Your task to perform on an android device: Go to Yahoo.com Image 0: 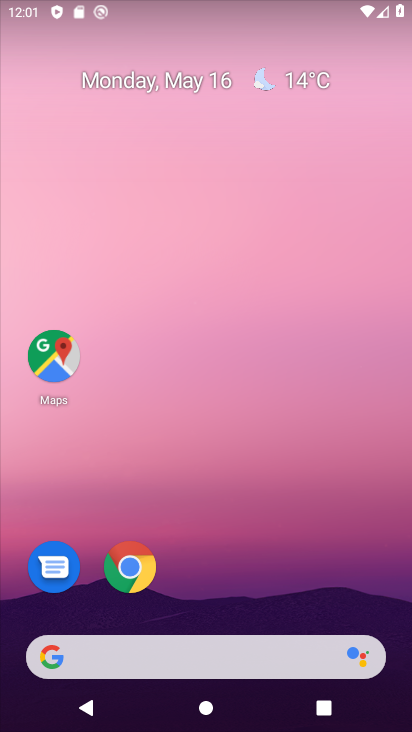
Step 0: press home button
Your task to perform on an android device: Go to Yahoo.com Image 1: 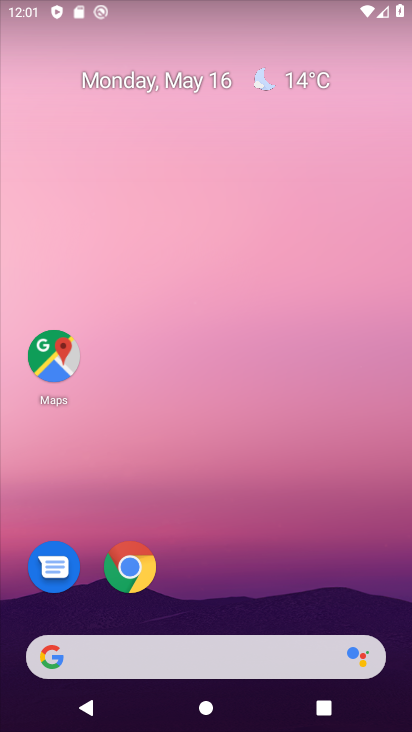
Step 1: click (135, 569)
Your task to perform on an android device: Go to Yahoo.com Image 2: 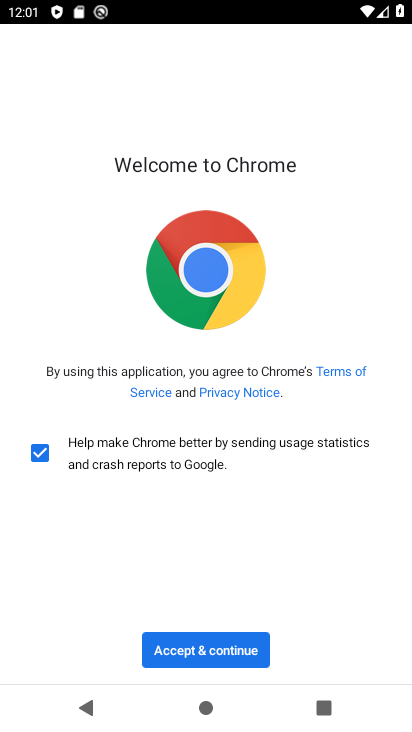
Step 2: click (225, 649)
Your task to perform on an android device: Go to Yahoo.com Image 3: 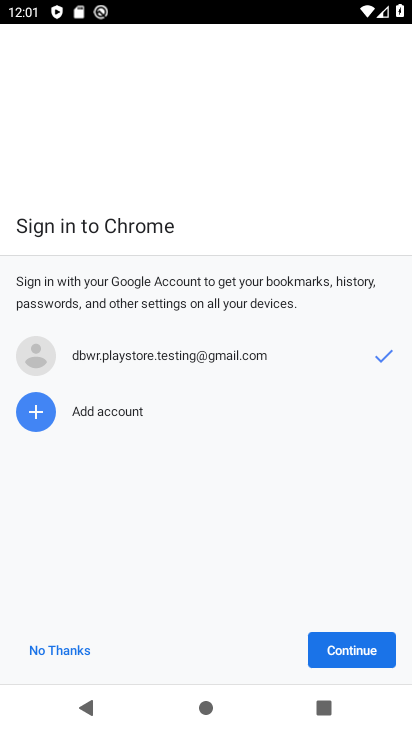
Step 3: click (350, 661)
Your task to perform on an android device: Go to Yahoo.com Image 4: 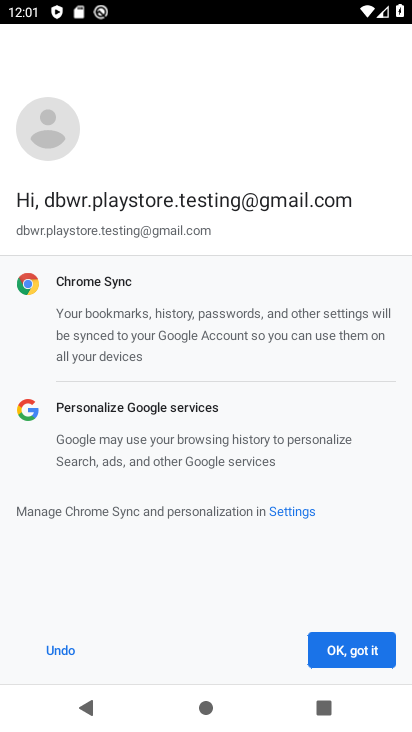
Step 4: click (350, 661)
Your task to perform on an android device: Go to Yahoo.com Image 5: 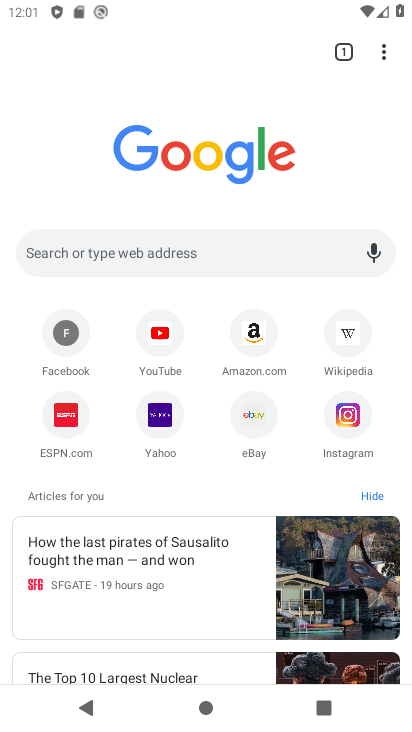
Step 5: click (155, 415)
Your task to perform on an android device: Go to Yahoo.com Image 6: 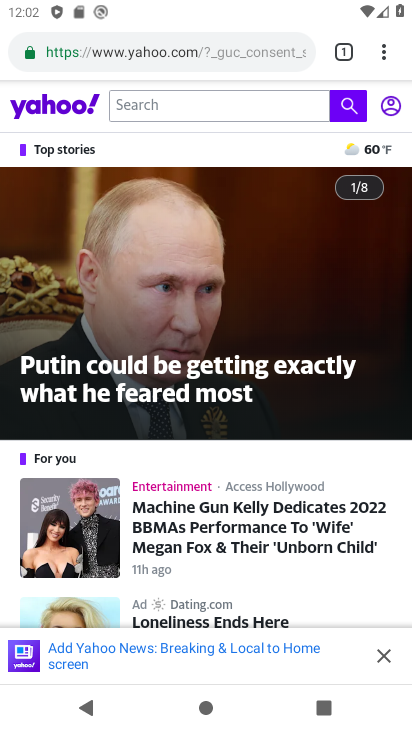
Step 6: task complete